Your task to perform on an android device: Open Chrome and go to settings Image 0: 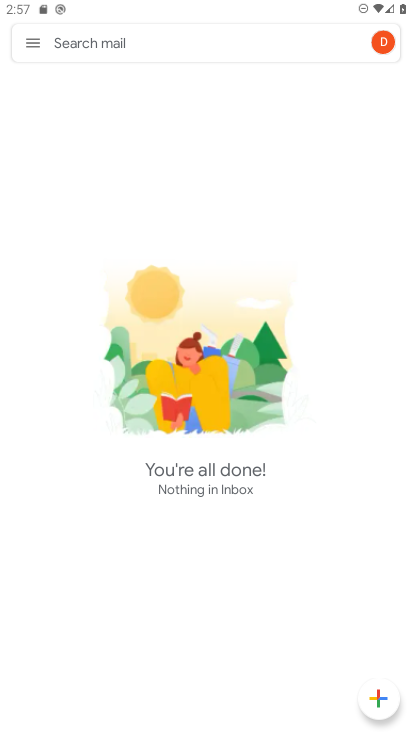
Step 0: press home button
Your task to perform on an android device: Open Chrome and go to settings Image 1: 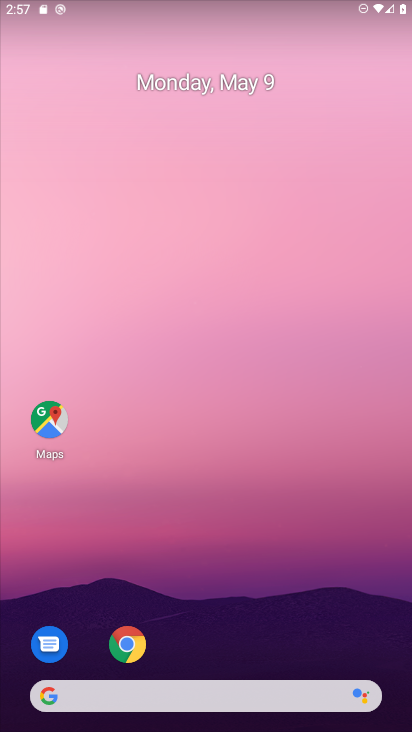
Step 1: click (131, 649)
Your task to perform on an android device: Open Chrome and go to settings Image 2: 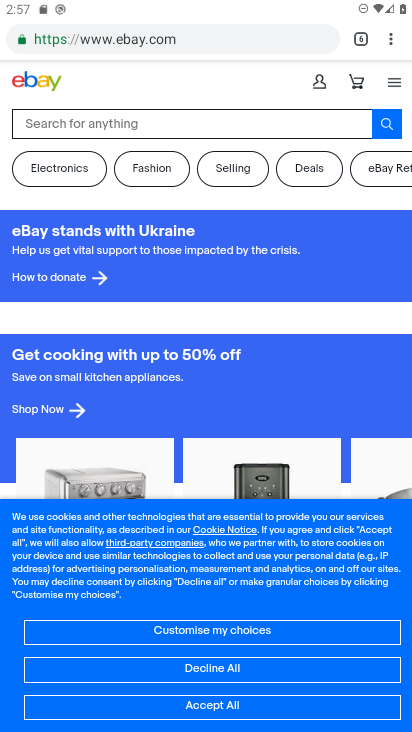
Step 2: click (389, 35)
Your task to perform on an android device: Open Chrome and go to settings Image 3: 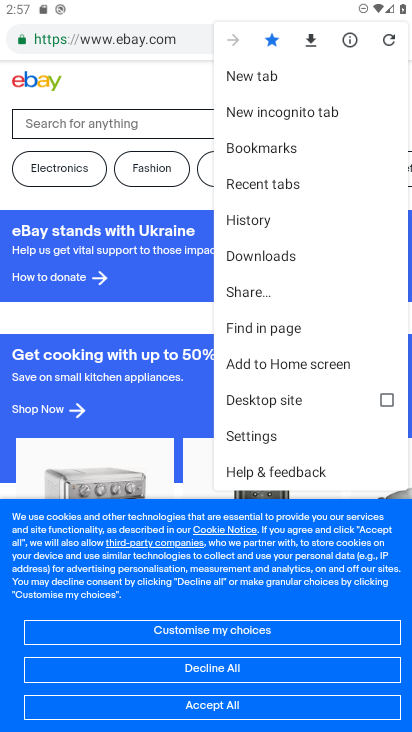
Step 3: click (259, 438)
Your task to perform on an android device: Open Chrome and go to settings Image 4: 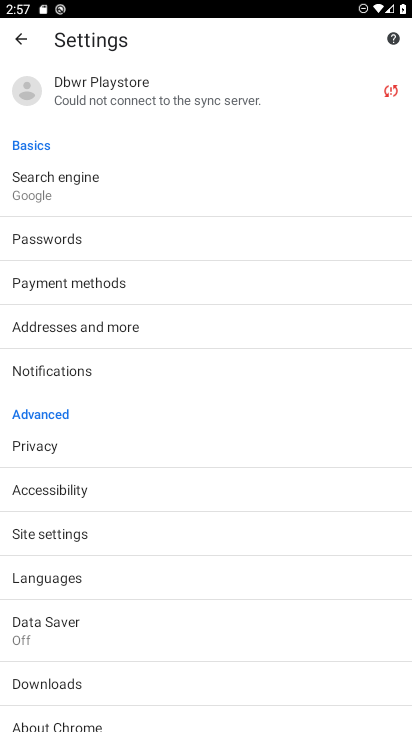
Step 4: task complete